Your task to perform on an android device: turn off location Image 0: 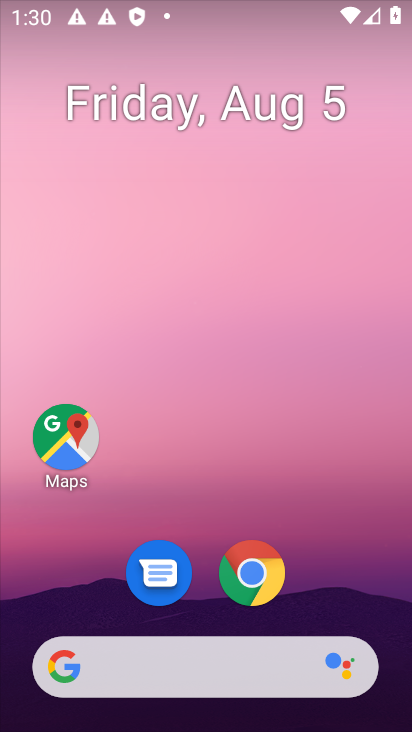
Step 0: press home button
Your task to perform on an android device: turn off location Image 1: 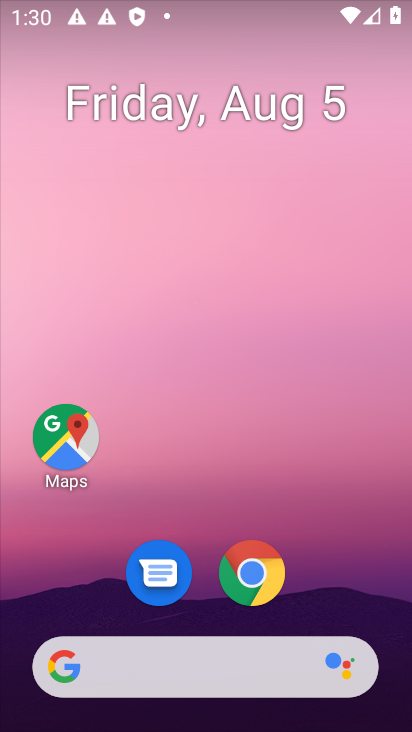
Step 1: drag from (341, 550) to (319, 117)
Your task to perform on an android device: turn off location Image 2: 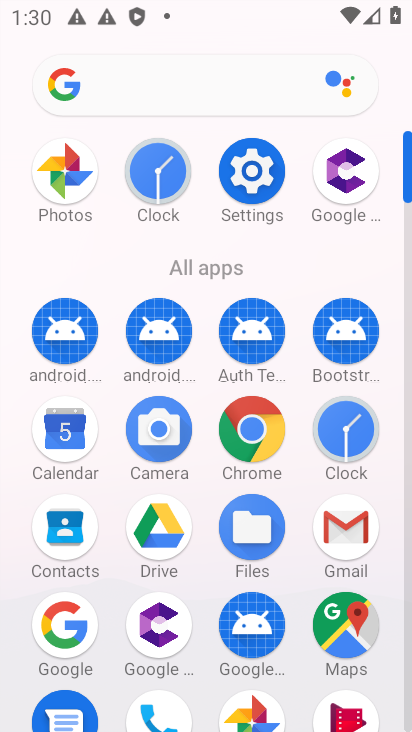
Step 2: click (255, 171)
Your task to perform on an android device: turn off location Image 3: 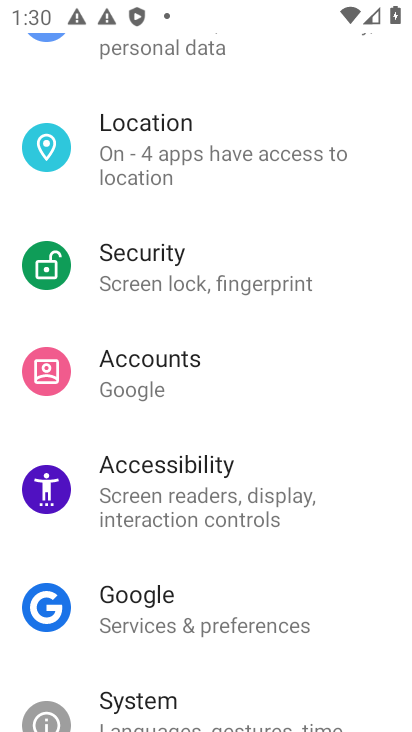
Step 3: drag from (358, 280) to (365, 351)
Your task to perform on an android device: turn off location Image 4: 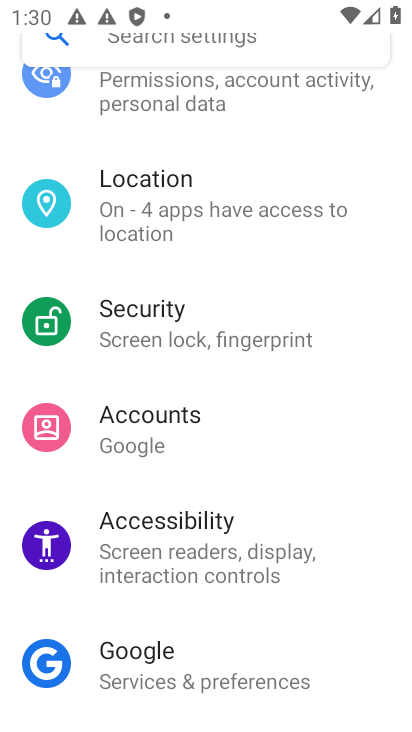
Step 4: drag from (365, 290) to (366, 386)
Your task to perform on an android device: turn off location Image 5: 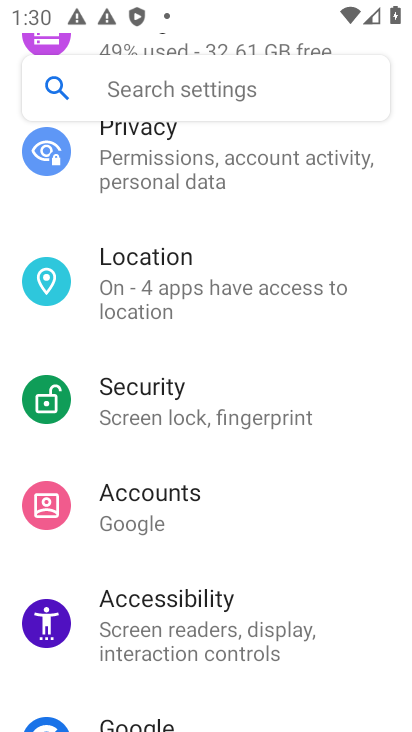
Step 5: drag from (375, 290) to (375, 371)
Your task to perform on an android device: turn off location Image 6: 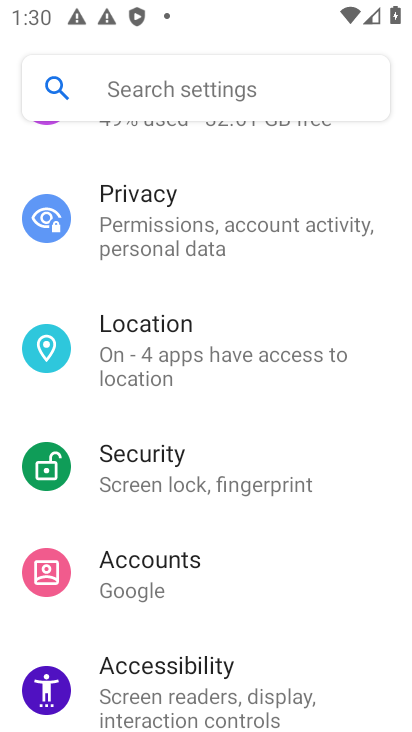
Step 6: drag from (375, 268) to (374, 360)
Your task to perform on an android device: turn off location Image 7: 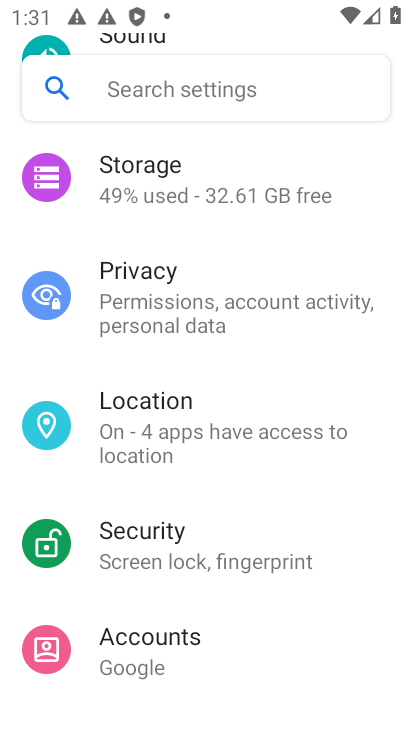
Step 7: click (353, 410)
Your task to perform on an android device: turn off location Image 8: 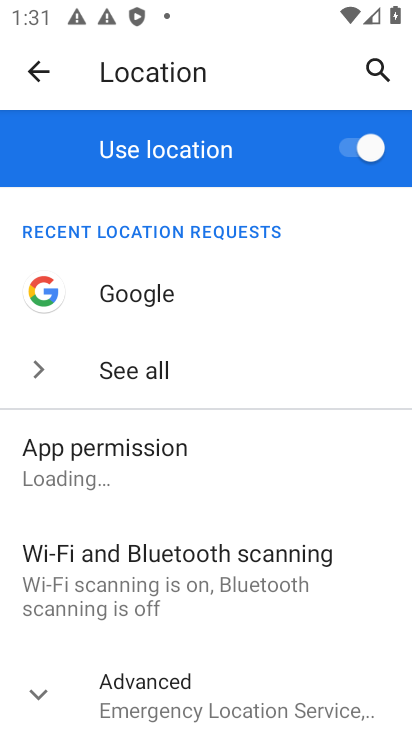
Step 8: click (365, 155)
Your task to perform on an android device: turn off location Image 9: 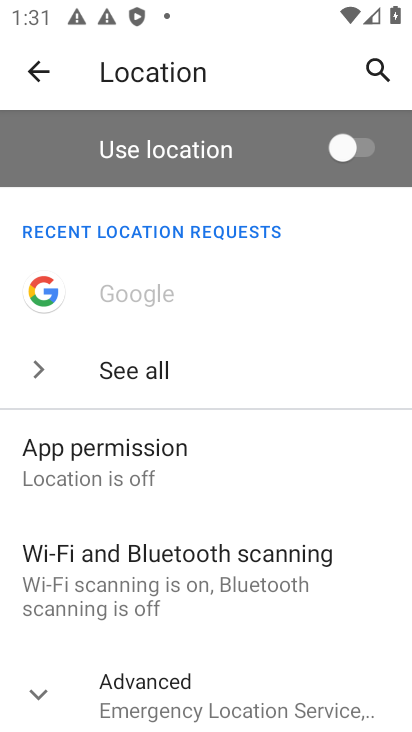
Step 9: task complete